Your task to perform on an android device: Open the Play Movies app and select the watchlist tab. Image 0: 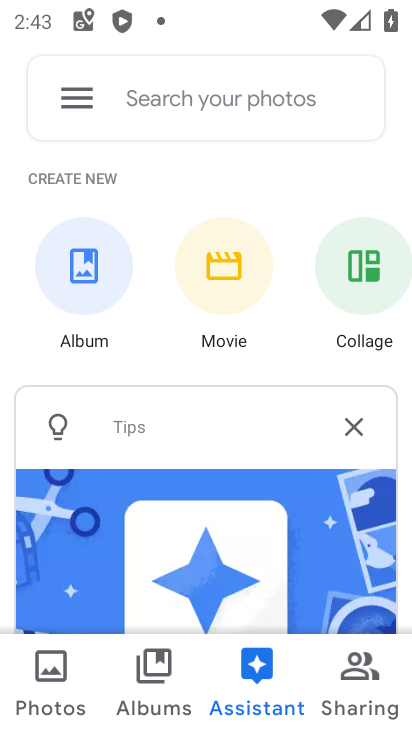
Step 0: press home button
Your task to perform on an android device: Open the Play Movies app and select the watchlist tab. Image 1: 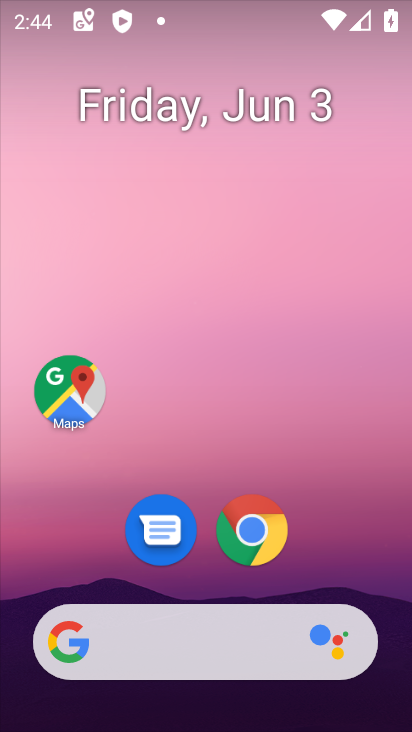
Step 1: drag from (320, 544) to (213, 136)
Your task to perform on an android device: Open the Play Movies app and select the watchlist tab. Image 2: 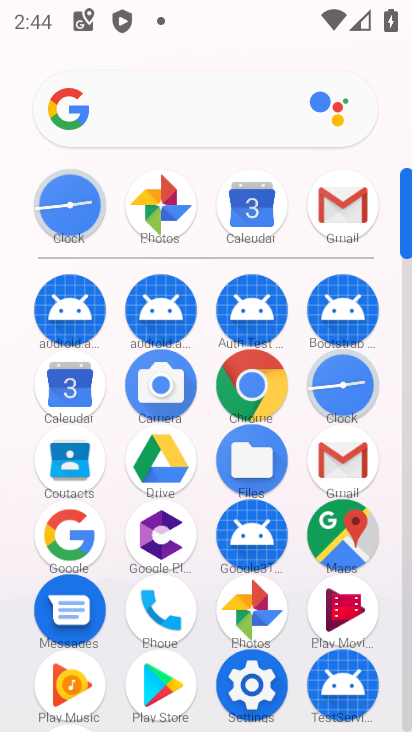
Step 2: click (324, 616)
Your task to perform on an android device: Open the Play Movies app and select the watchlist tab. Image 3: 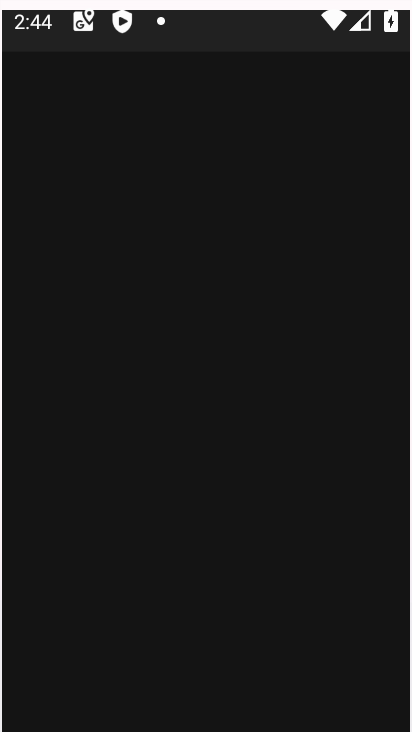
Step 3: click (341, 595)
Your task to perform on an android device: Open the Play Movies app and select the watchlist tab. Image 4: 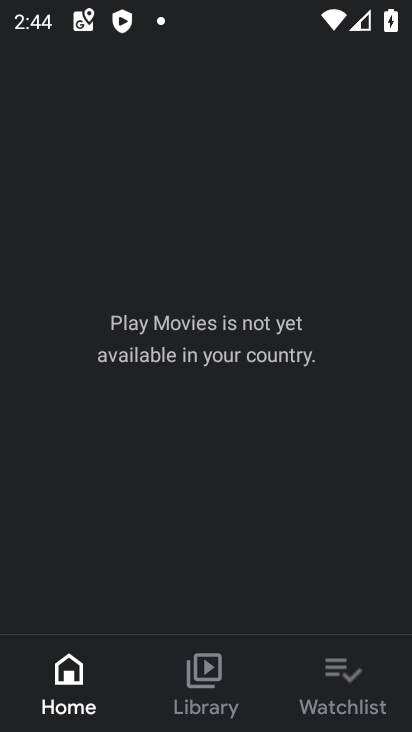
Step 4: click (338, 673)
Your task to perform on an android device: Open the Play Movies app and select the watchlist tab. Image 5: 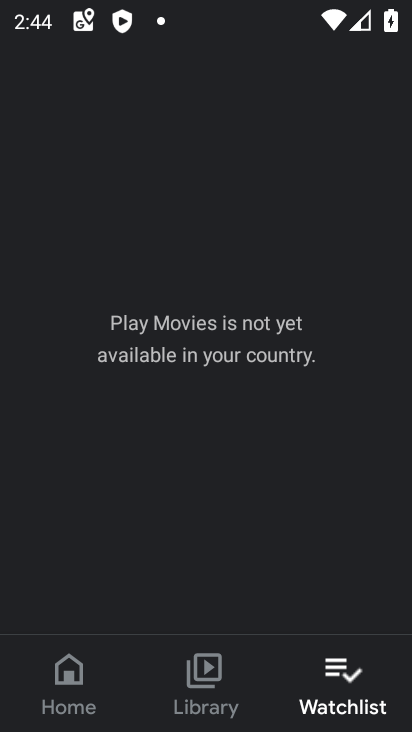
Step 5: task complete